Your task to perform on an android device: Go to CNN.com Image 0: 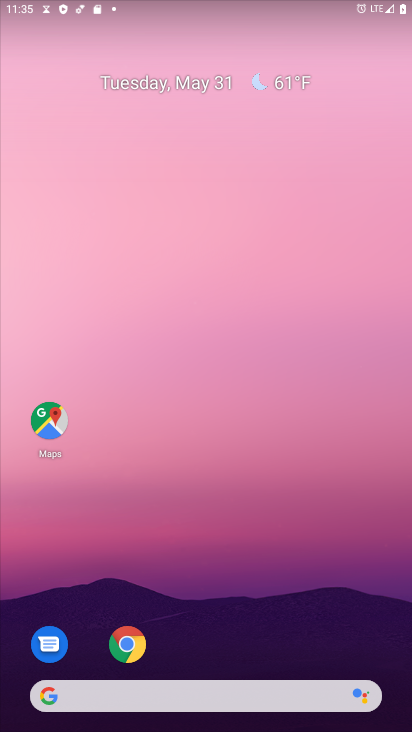
Step 0: click (130, 639)
Your task to perform on an android device: Go to CNN.com Image 1: 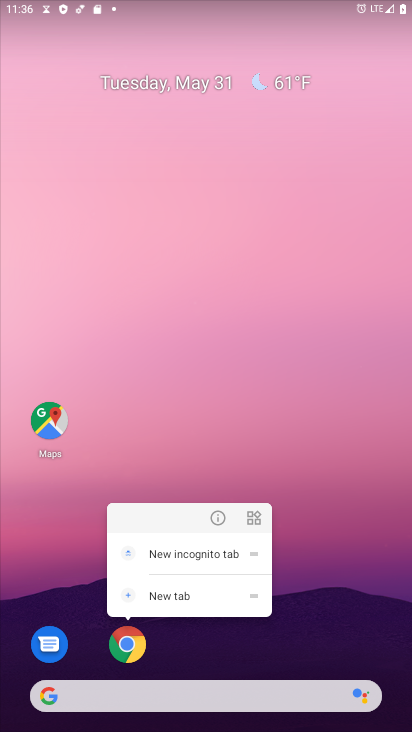
Step 1: click (130, 639)
Your task to perform on an android device: Go to CNN.com Image 2: 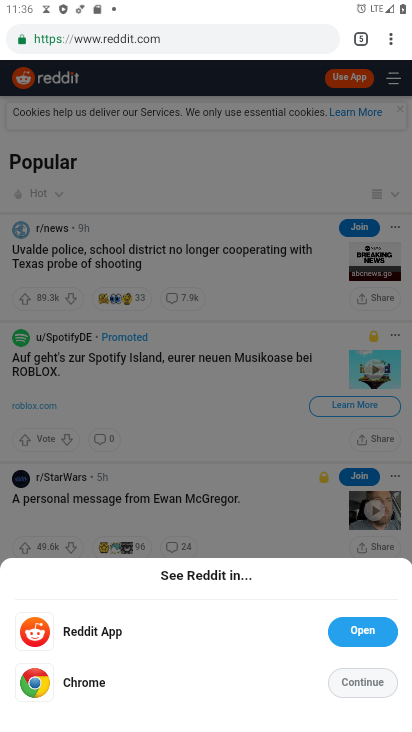
Step 2: click (356, 35)
Your task to perform on an android device: Go to CNN.com Image 3: 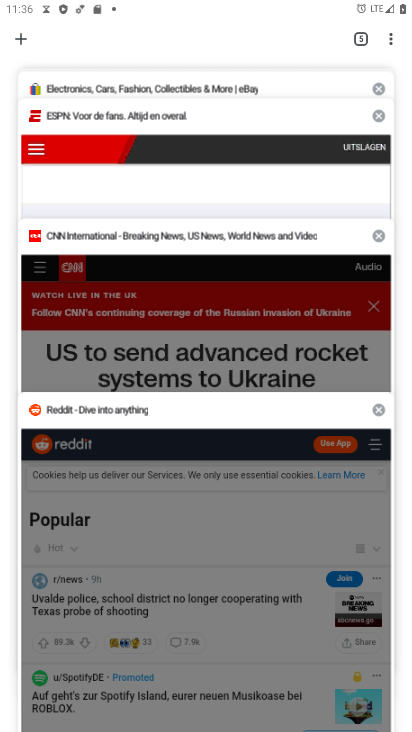
Step 3: click (109, 236)
Your task to perform on an android device: Go to CNN.com Image 4: 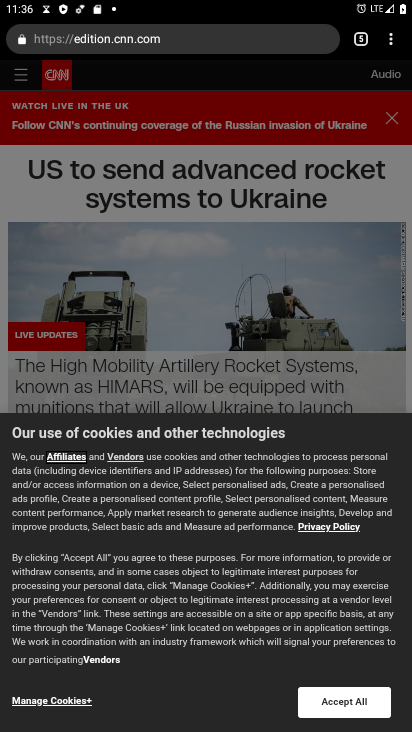
Step 4: task complete